Your task to perform on an android device: toggle location history Image 0: 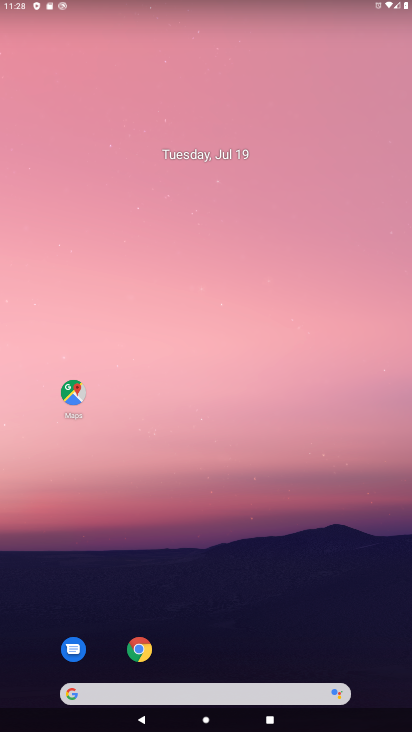
Step 0: drag from (293, 454) to (280, 33)
Your task to perform on an android device: toggle location history Image 1: 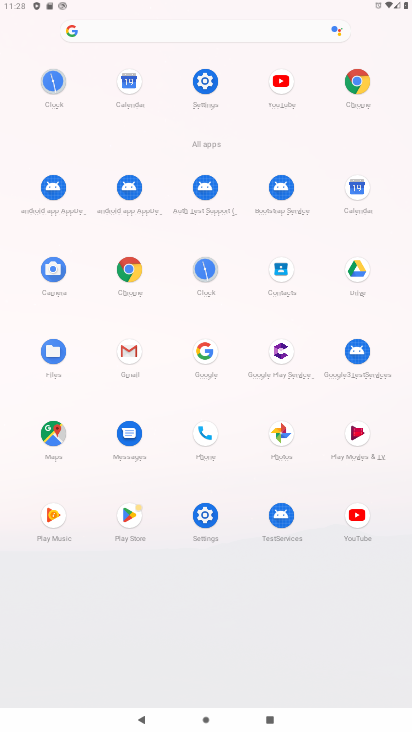
Step 1: click (197, 71)
Your task to perform on an android device: toggle location history Image 2: 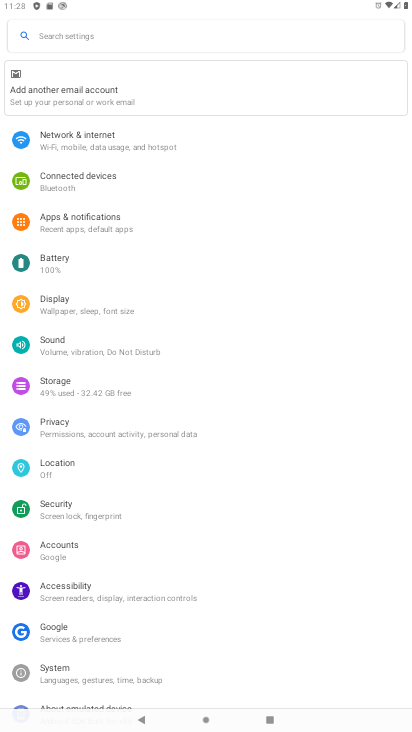
Step 2: click (96, 464)
Your task to perform on an android device: toggle location history Image 3: 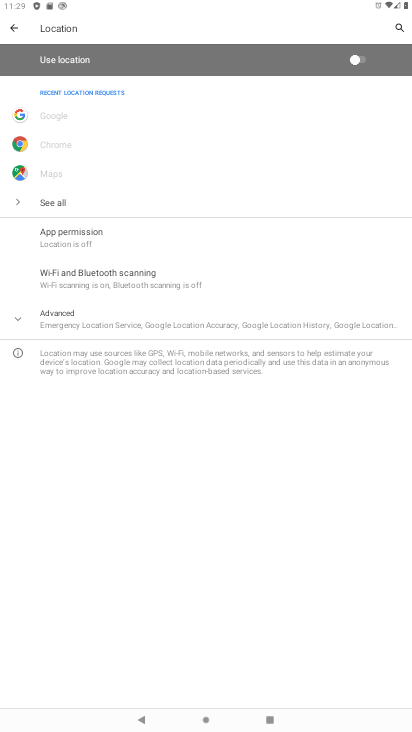
Step 3: click (140, 326)
Your task to perform on an android device: toggle location history Image 4: 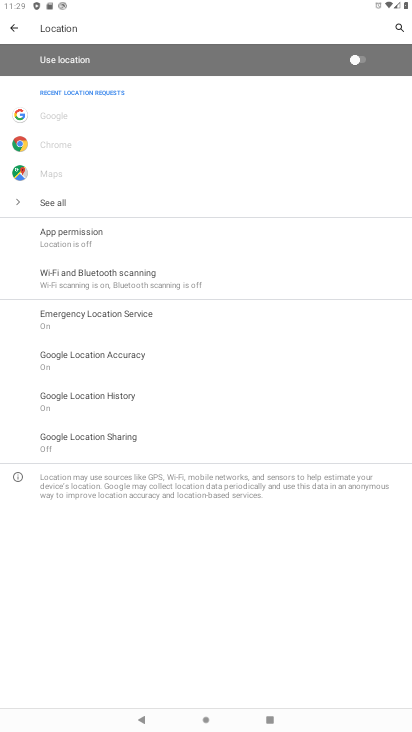
Step 4: click (86, 398)
Your task to perform on an android device: toggle location history Image 5: 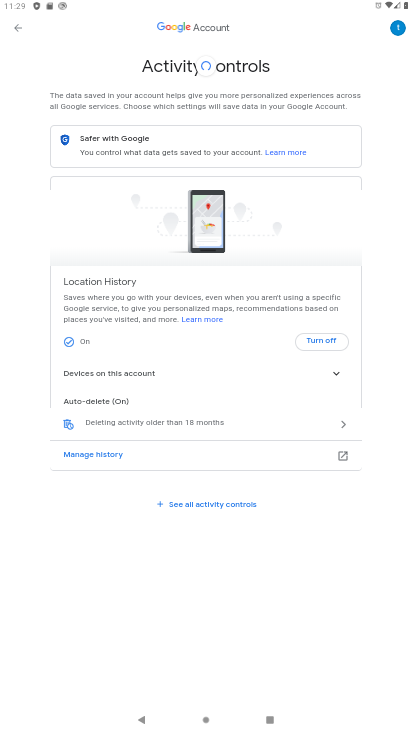
Step 5: click (327, 340)
Your task to perform on an android device: toggle location history Image 6: 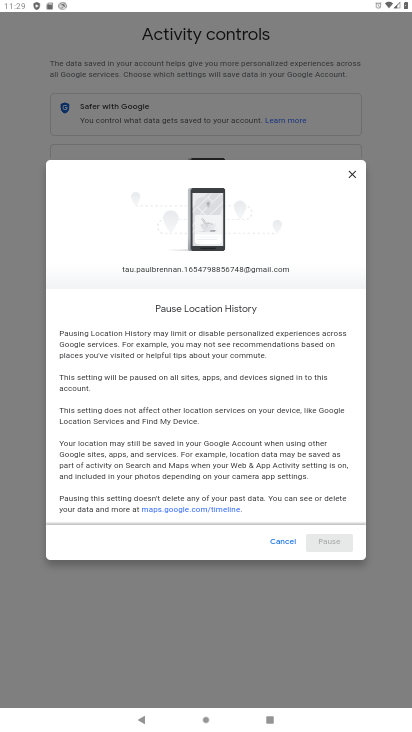
Step 6: drag from (289, 471) to (286, 145)
Your task to perform on an android device: toggle location history Image 7: 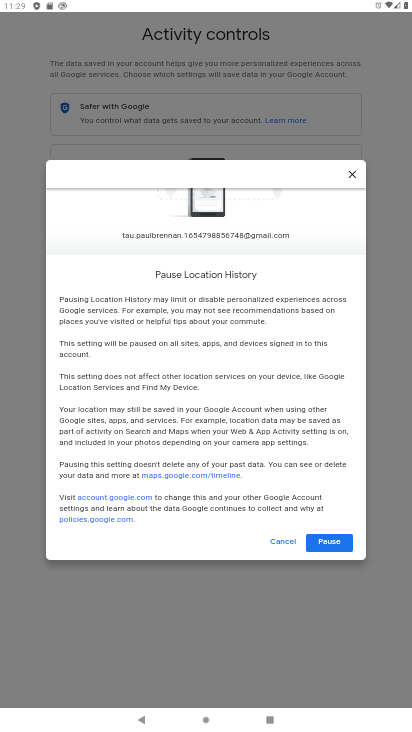
Step 7: click (323, 549)
Your task to perform on an android device: toggle location history Image 8: 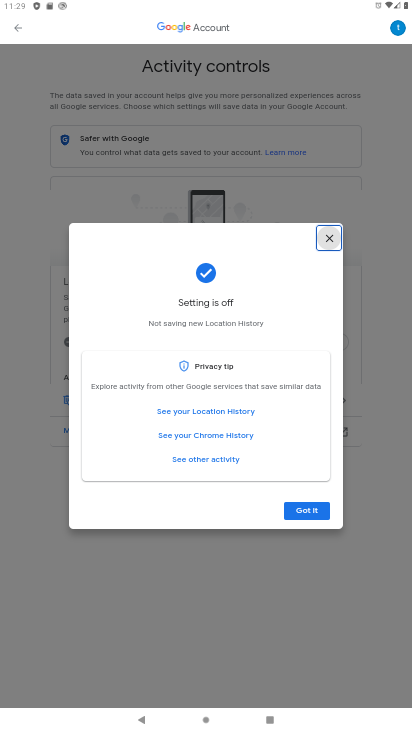
Step 8: task complete